Your task to perform on an android device: Play the last video I watched on Youtube Image 0: 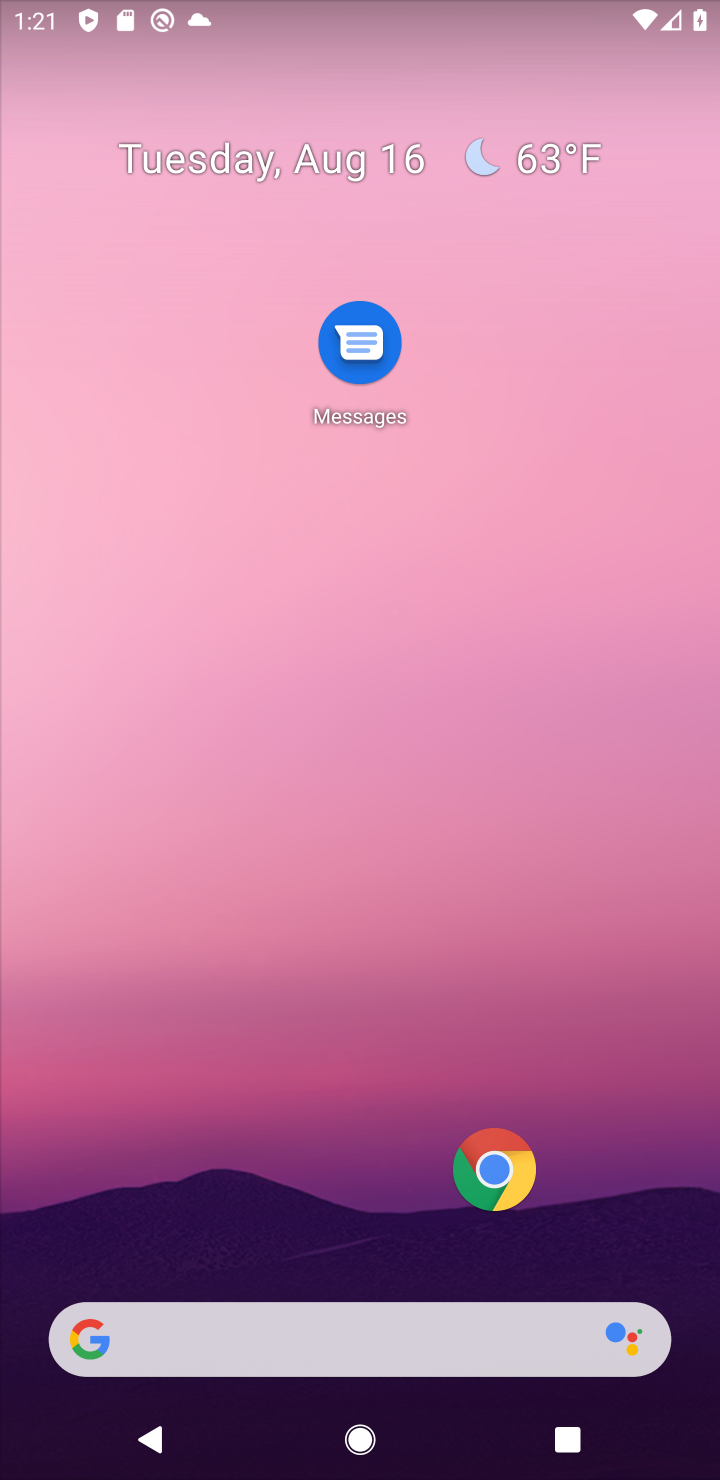
Step 0: drag from (73, 1394) to (267, 147)
Your task to perform on an android device: Play the last video I watched on Youtube Image 1: 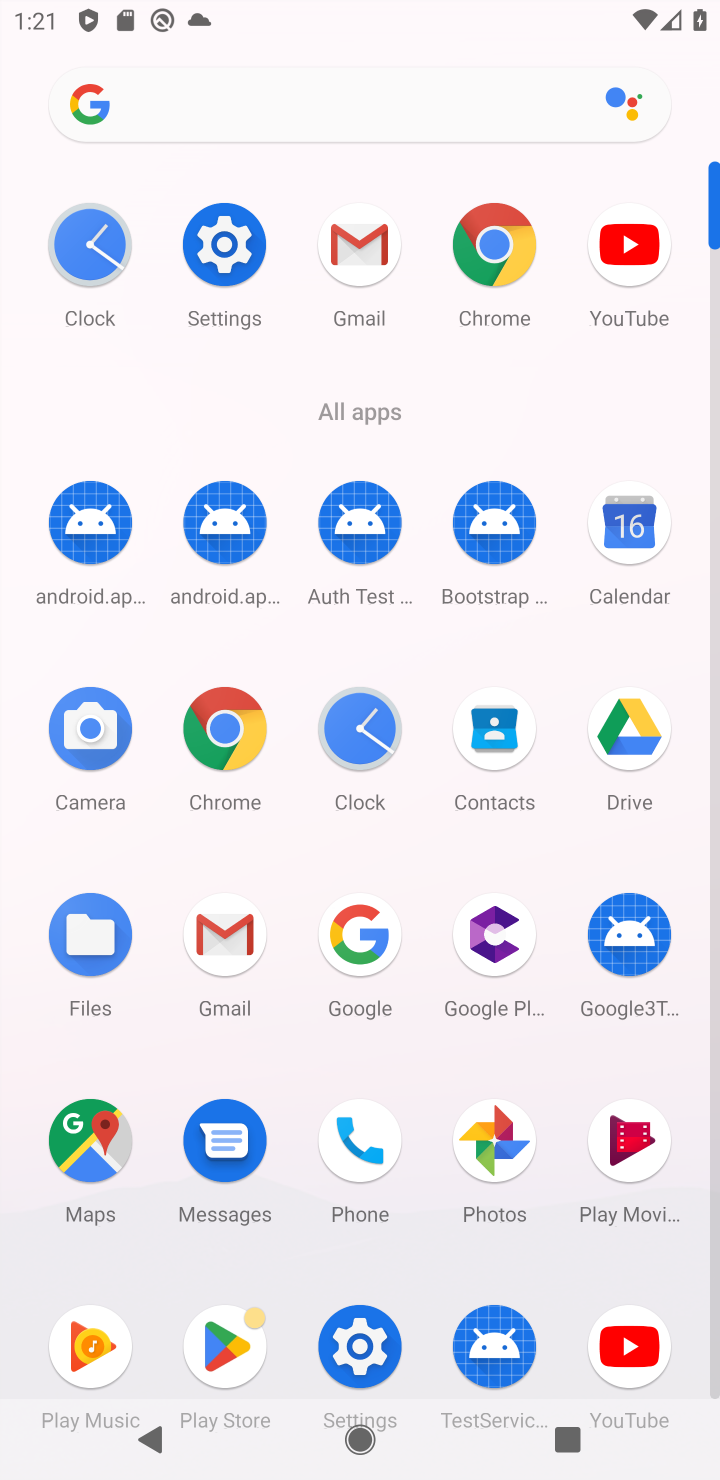
Step 1: click (621, 1356)
Your task to perform on an android device: Play the last video I watched on Youtube Image 2: 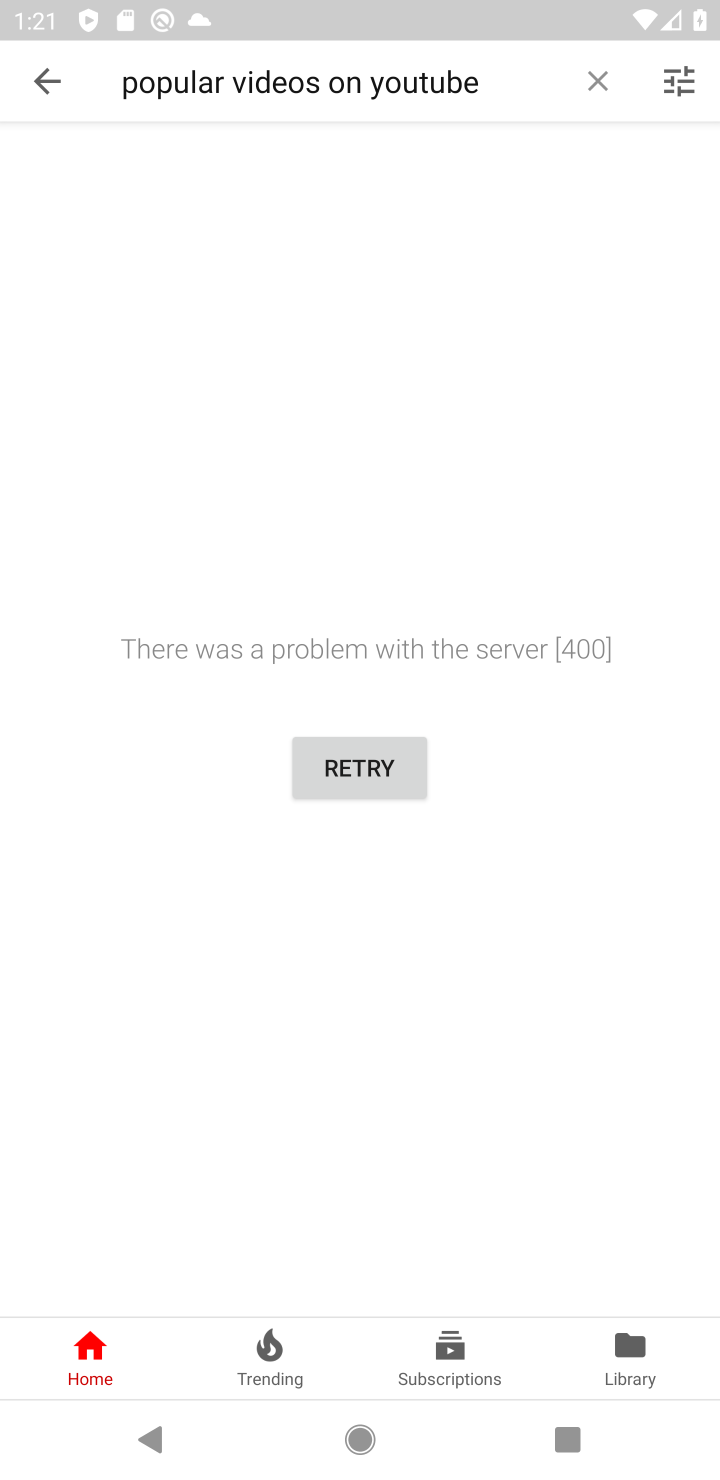
Step 2: click (640, 1361)
Your task to perform on an android device: Play the last video I watched on Youtube Image 3: 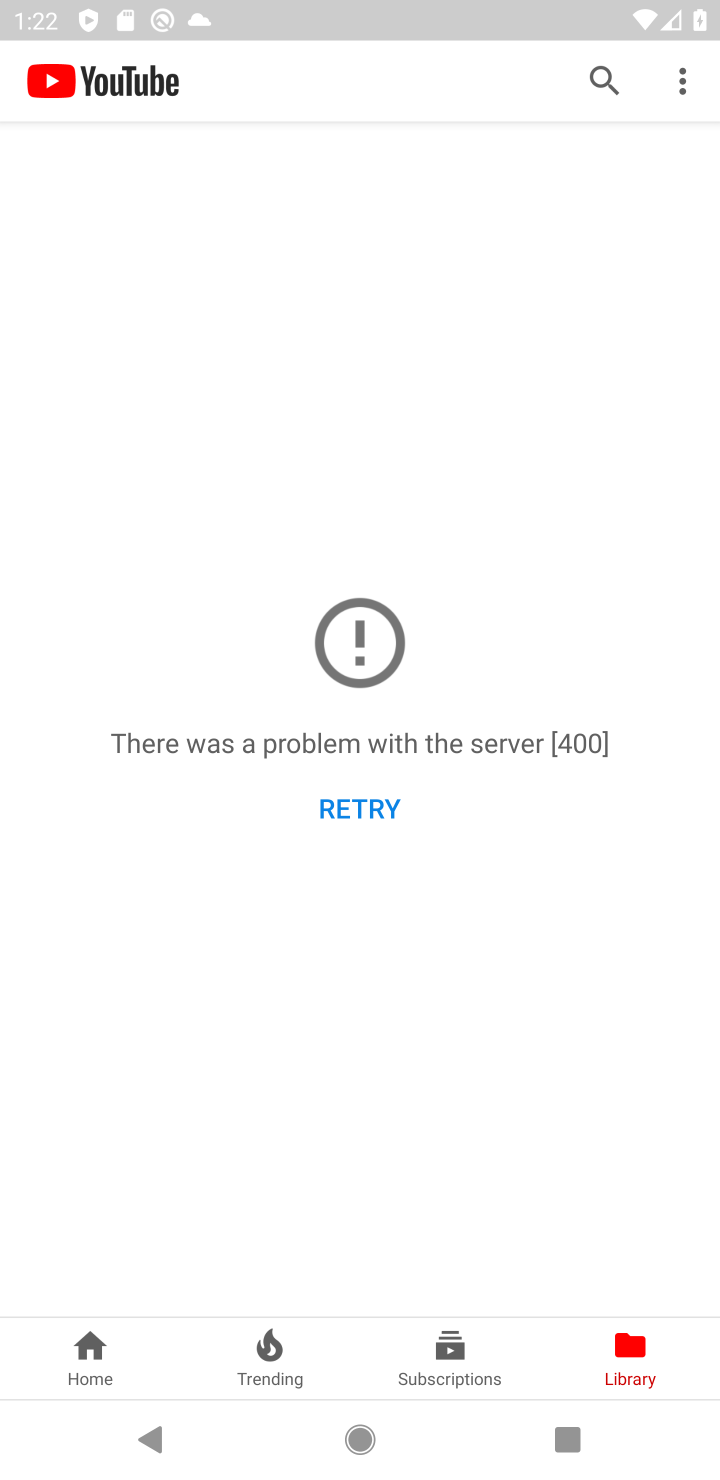
Step 3: click (610, 1350)
Your task to perform on an android device: Play the last video I watched on Youtube Image 4: 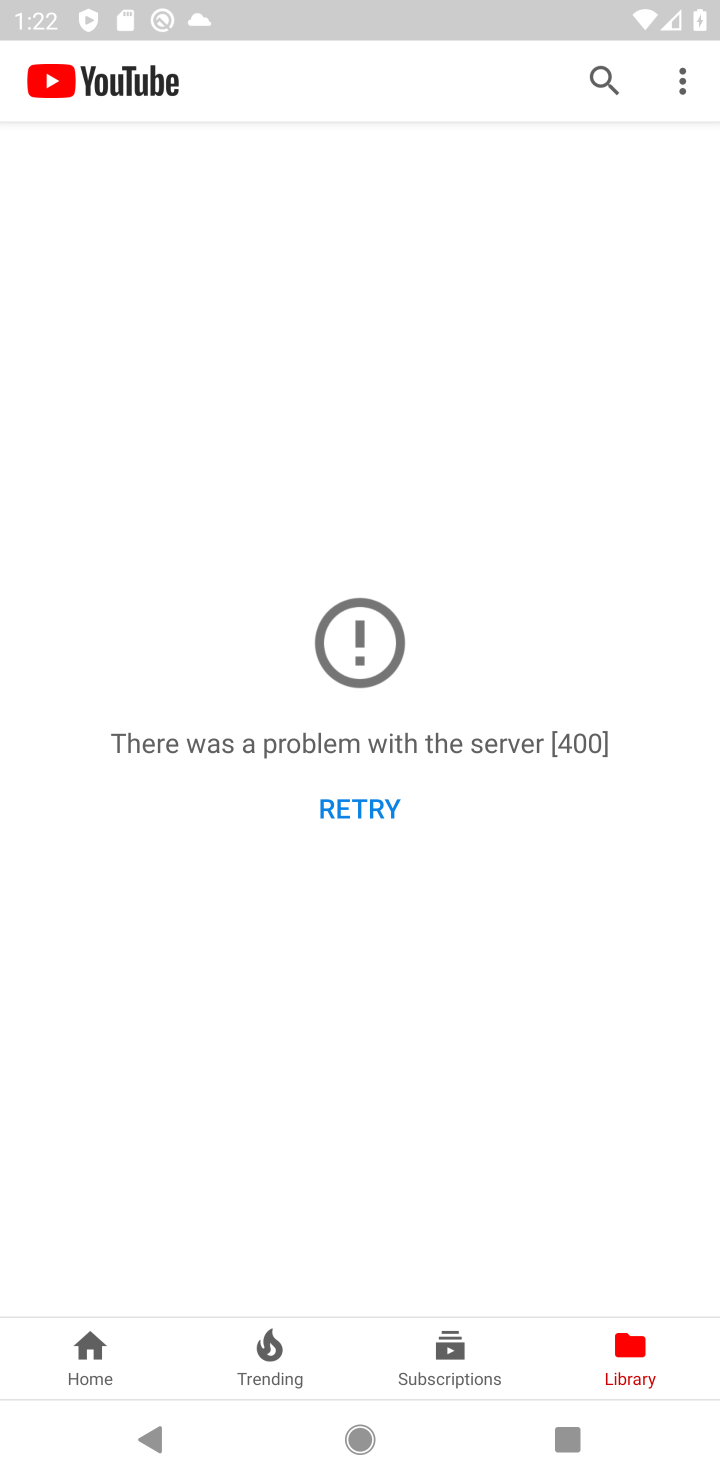
Step 4: task complete